Your task to perform on an android device: turn vacation reply on in the gmail app Image 0: 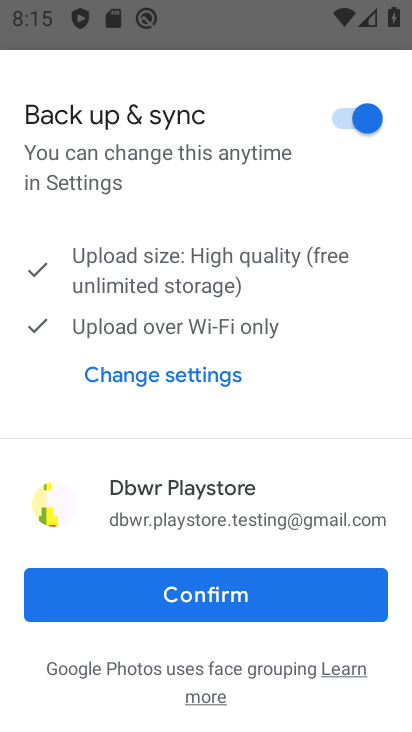
Step 0: press home button
Your task to perform on an android device: turn vacation reply on in the gmail app Image 1: 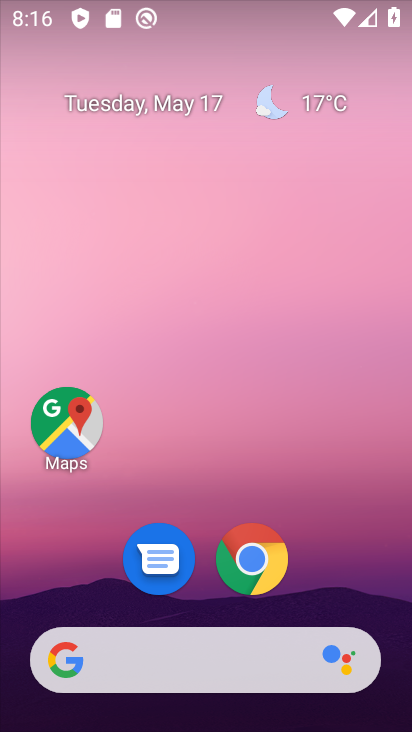
Step 1: drag from (213, 657) to (163, 203)
Your task to perform on an android device: turn vacation reply on in the gmail app Image 2: 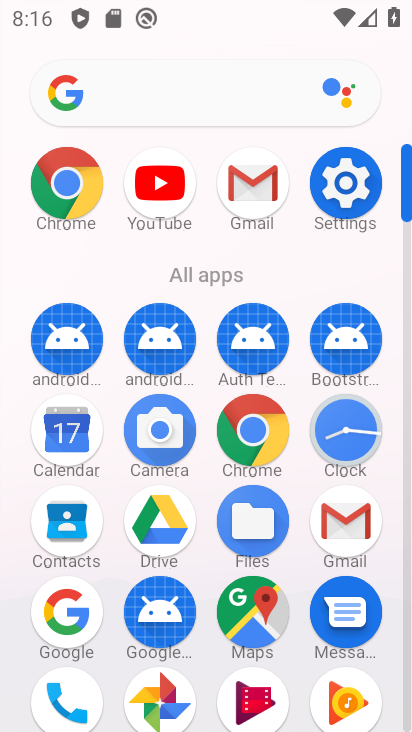
Step 2: click (345, 523)
Your task to perform on an android device: turn vacation reply on in the gmail app Image 3: 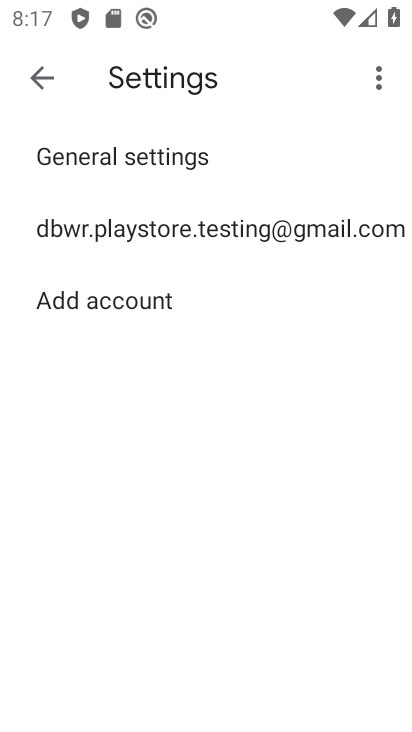
Step 3: click (135, 240)
Your task to perform on an android device: turn vacation reply on in the gmail app Image 4: 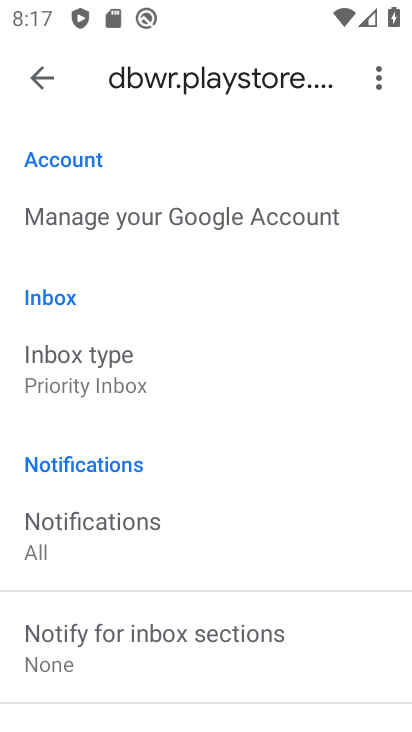
Step 4: drag from (250, 612) to (207, 152)
Your task to perform on an android device: turn vacation reply on in the gmail app Image 5: 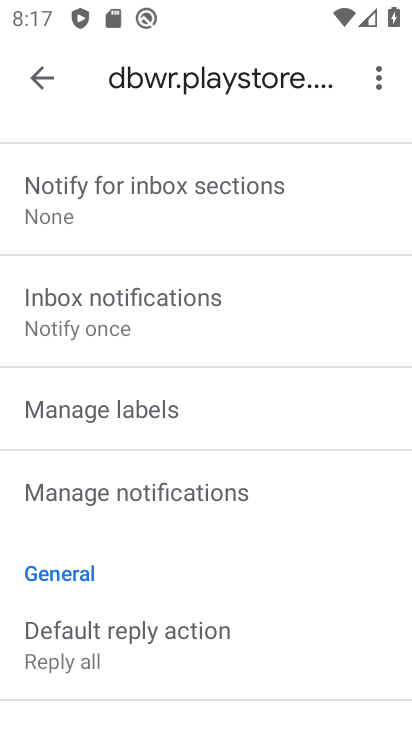
Step 5: drag from (165, 606) to (130, 106)
Your task to perform on an android device: turn vacation reply on in the gmail app Image 6: 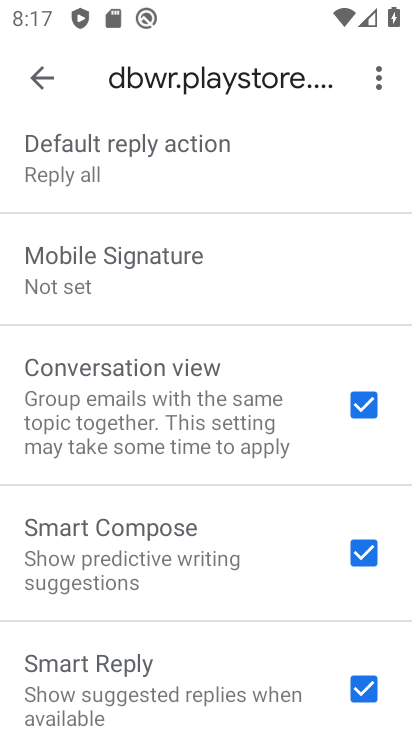
Step 6: drag from (205, 469) to (184, 137)
Your task to perform on an android device: turn vacation reply on in the gmail app Image 7: 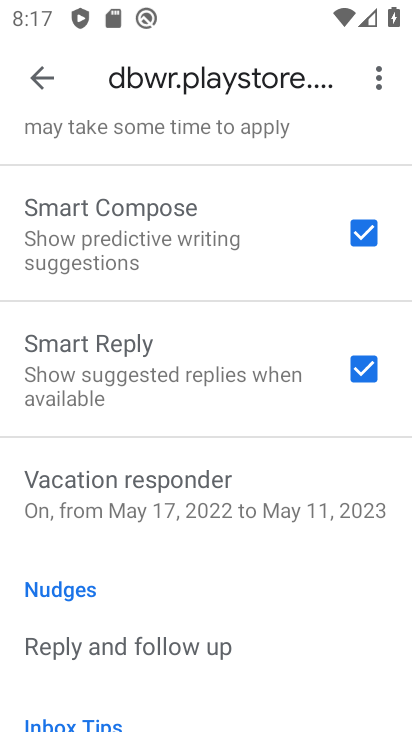
Step 7: click (211, 492)
Your task to perform on an android device: turn vacation reply on in the gmail app Image 8: 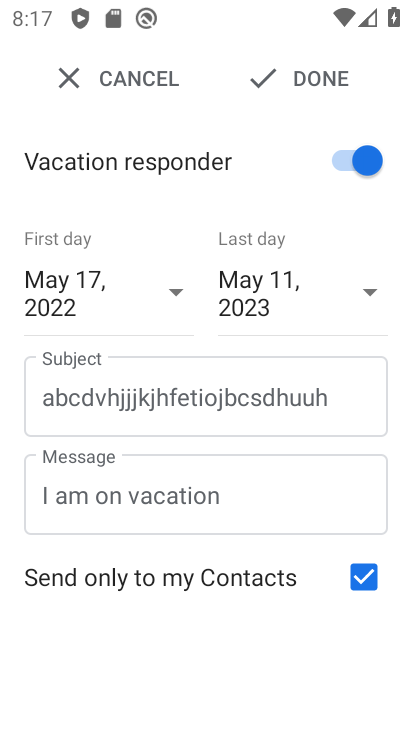
Step 8: click (258, 103)
Your task to perform on an android device: turn vacation reply on in the gmail app Image 9: 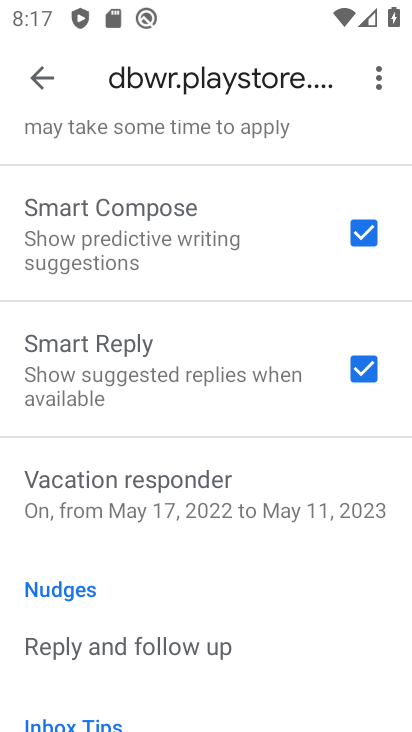
Step 9: task complete